Your task to perform on an android device: Open the Play Movies app and select the watchlist tab. Image 0: 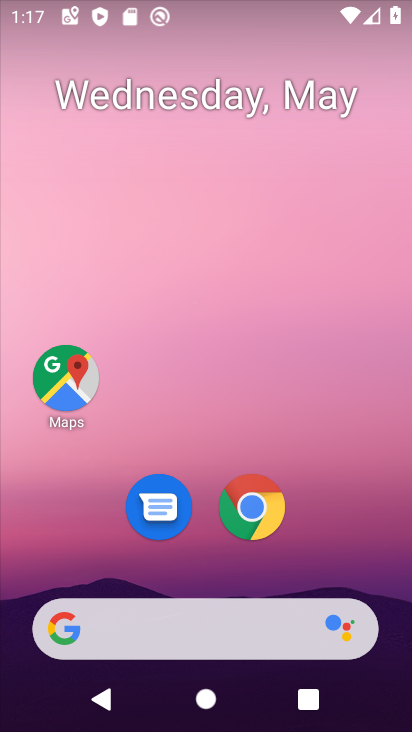
Step 0: drag from (262, 453) to (287, 116)
Your task to perform on an android device: Open the Play Movies app and select the watchlist tab. Image 1: 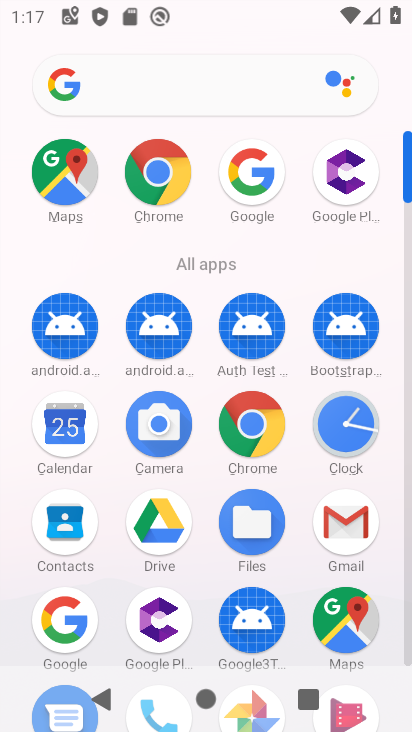
Step 1: drag from (211, 266) to (216, 102)
Your task to perform on an android device: Open the Play Movies app and select the watchlist tab. Image 2: 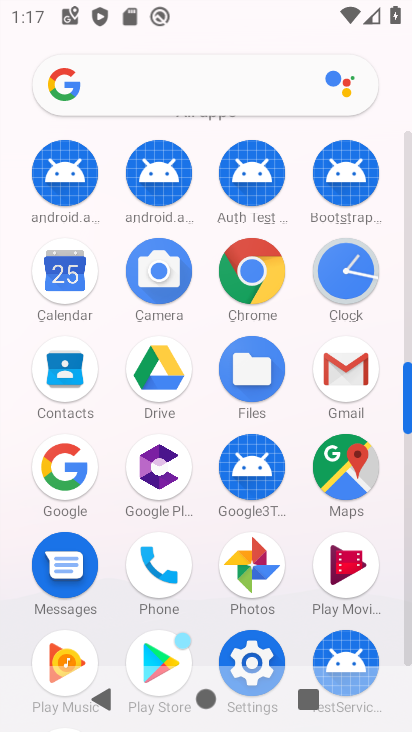
Step 2: click (351, 586)
Your task to perform on an android device: Open the Play Movies app and select the watchlist tab. Image 3: 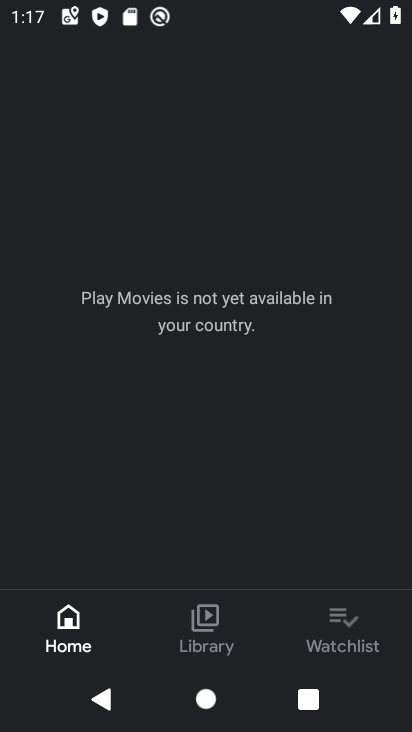
Step 3: click (347, 633)
Your task to perform on an android device: Open the Play Movies app and select the watchlist tab. Image 4: 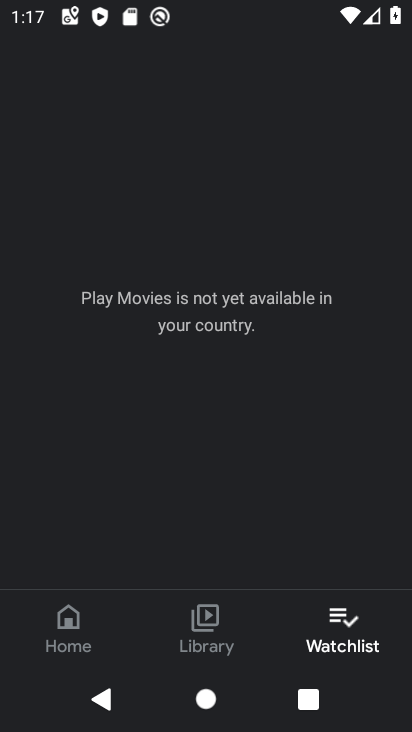
Step 4: task complete